Your task to perform on an android device: Open settings on Google Maps Image 0: 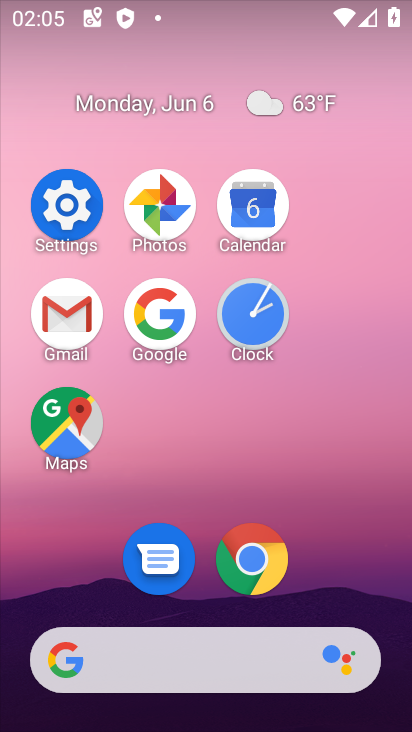
Step 0: click (50, 419)
Your task to perform on an android device: Open settings on Google Maps Image 1: 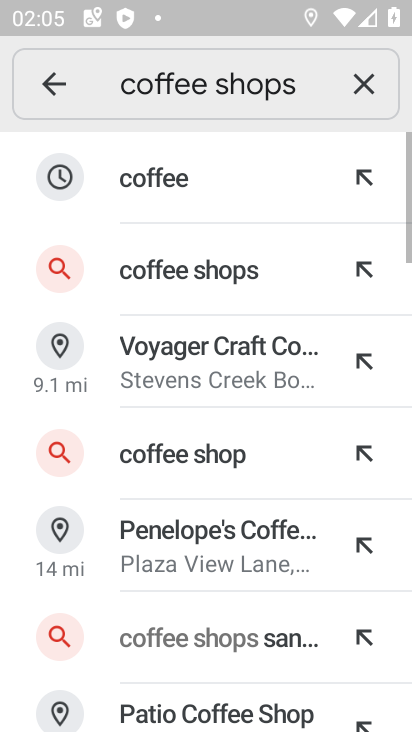
Step 1: click (51, 52)
Your task to perform on an android device: Open settings on Google Maps Image 2: 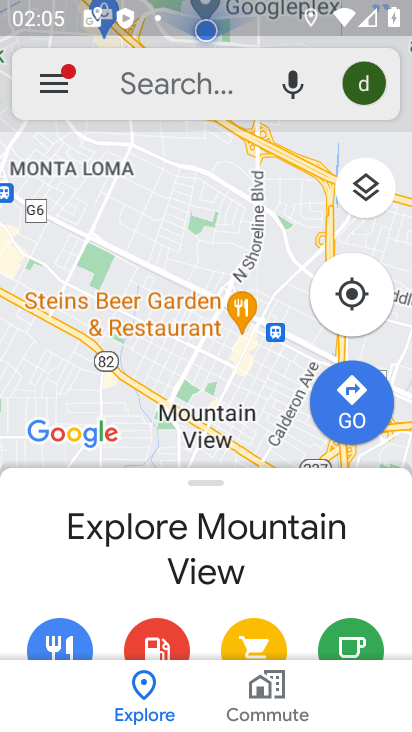
Step 2: click (49, 70)
Your task to perform on an android device: Open settings on Google Maps Image 3: 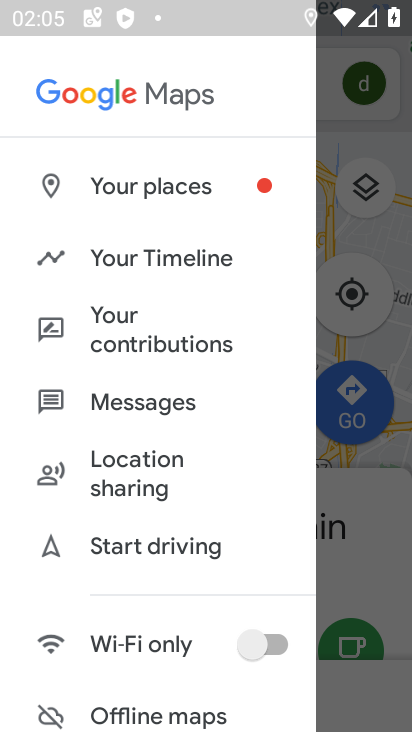
Step 3: drag from (146, 621) to (200, 217)
Your task to perform on an android device: Open settings on Google Maps Image 4: 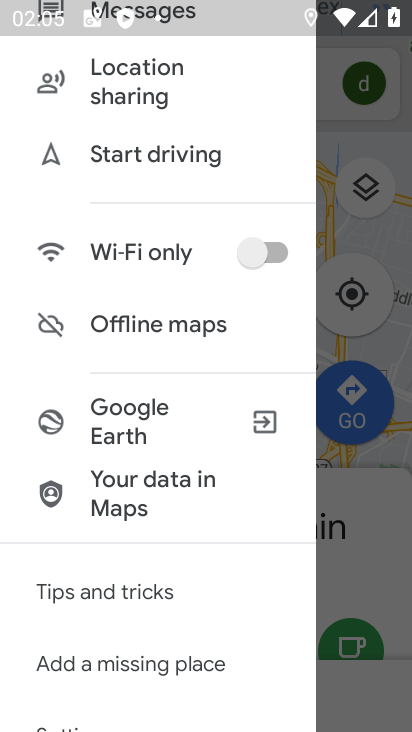
Step 4: drag from (117, 545) to (163, 162)
Your task to perform on an android device: Open settings on Google Maps Image 5: 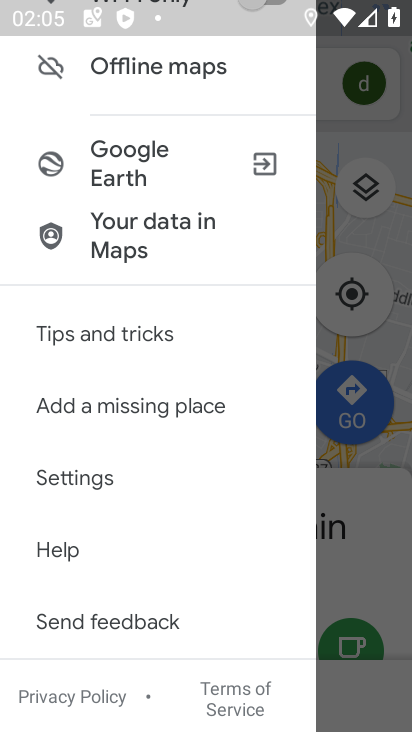
Step 5: click (107, 488)
Your task to perform on an android device: Open settings on Google Maps Image 6: 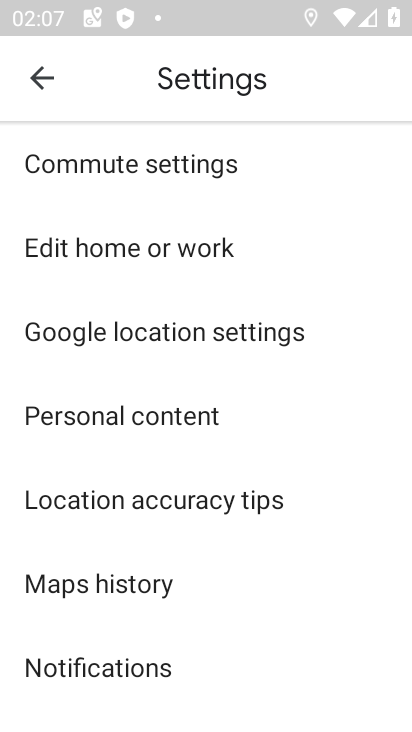
Step 6: task complete